Your task to perform on an android device: What is the news today? Image 0: 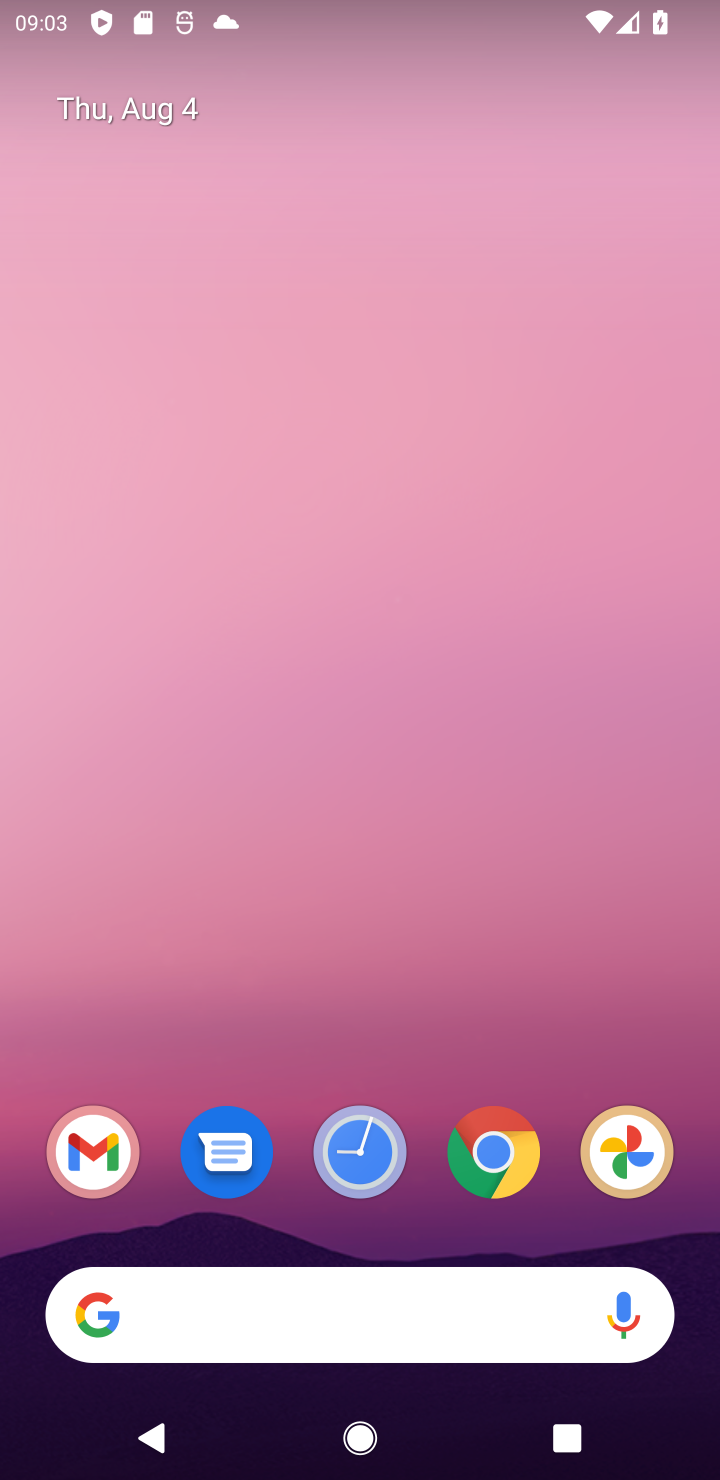
Step 0: press home button
Your task to perform on an android device: What is the news today? Image 1: 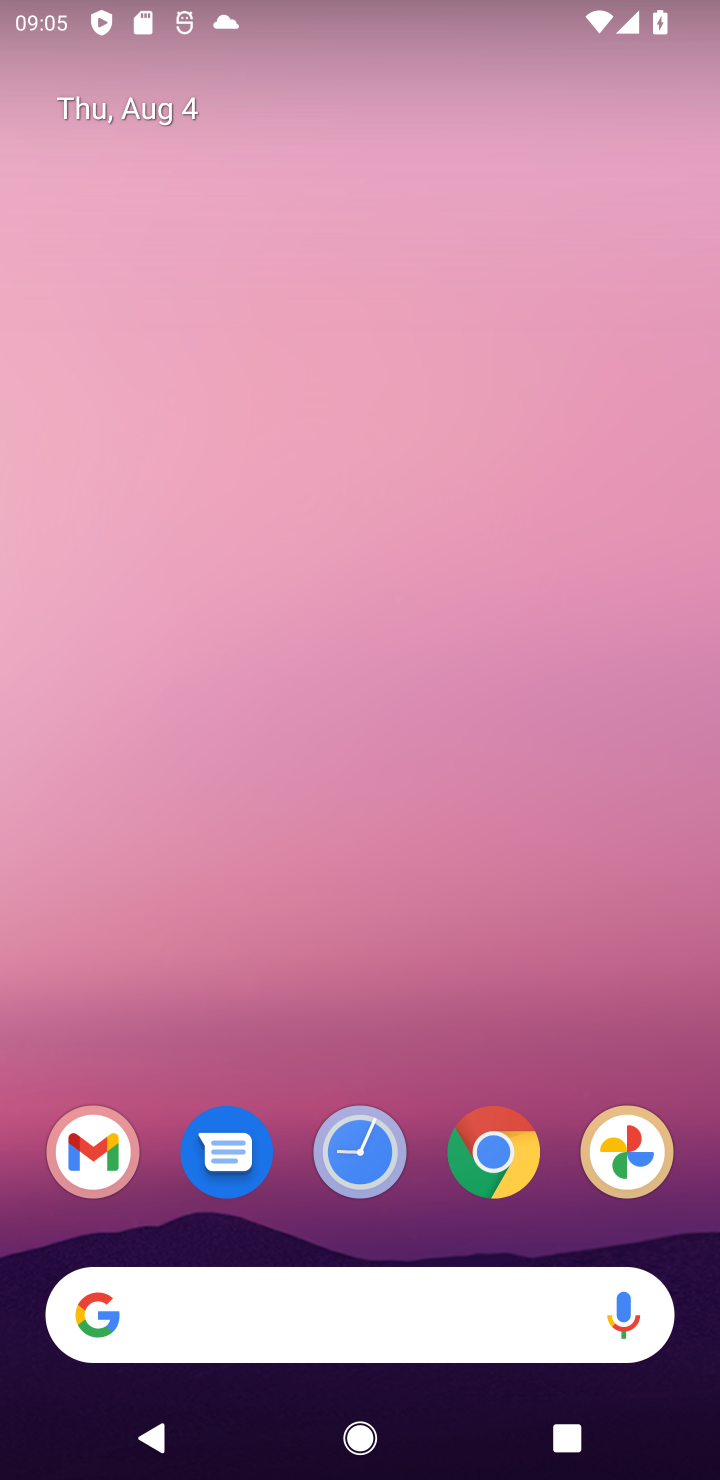
Step 1: click (415, 1329)
Your task to perform on an android device: What is the news today? Image 2: 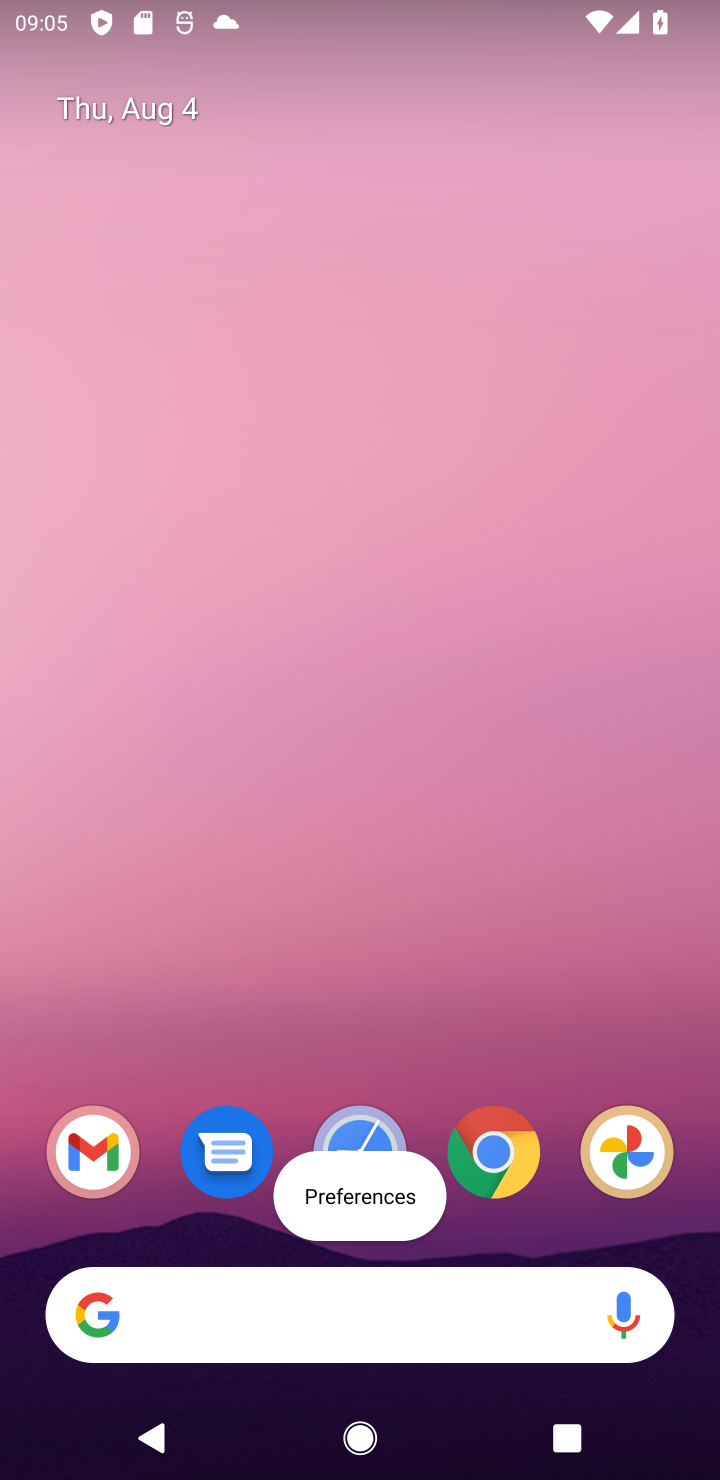
Step 2: click (245, 1322)
Your task to perform on an android device: What is the news today? Image 3: 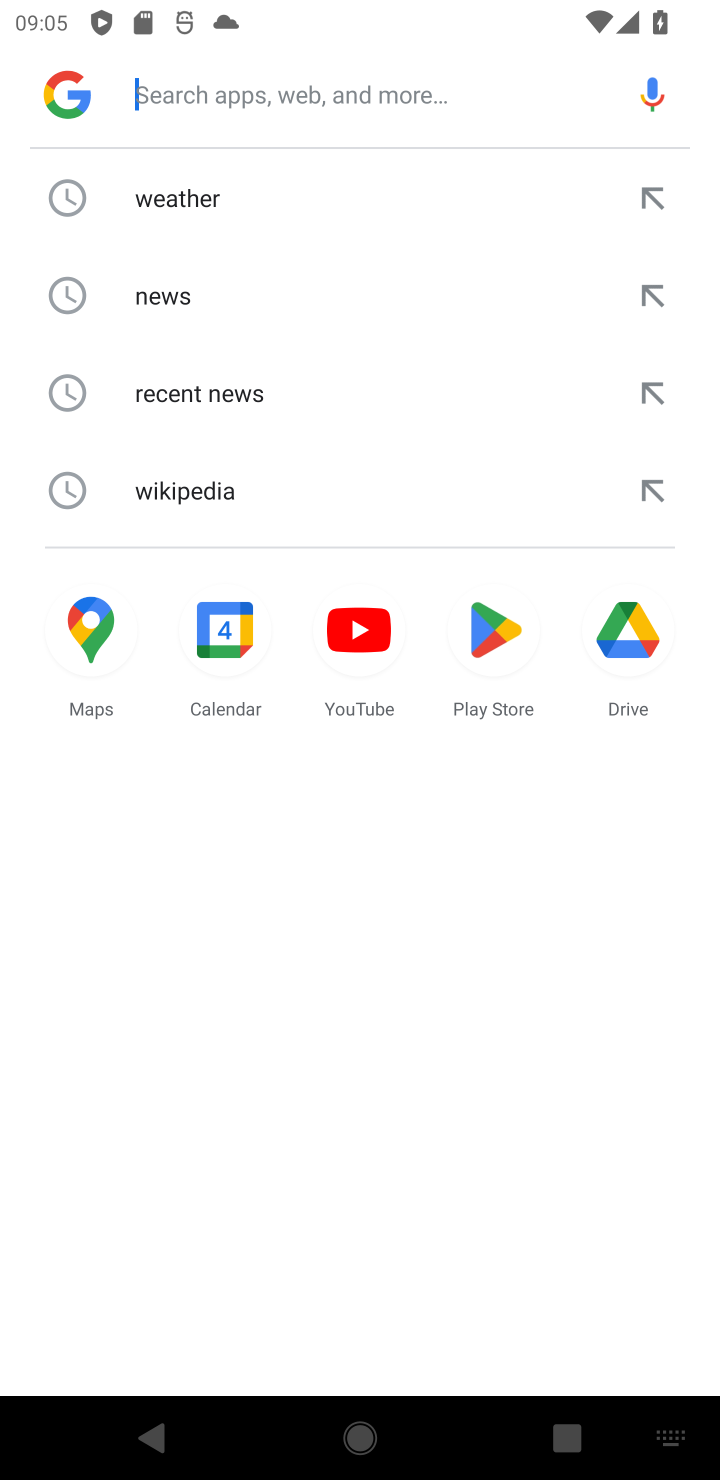
Step 3: click (159, 301)
Your task to perform on an android device: What is the news today? Image 4: 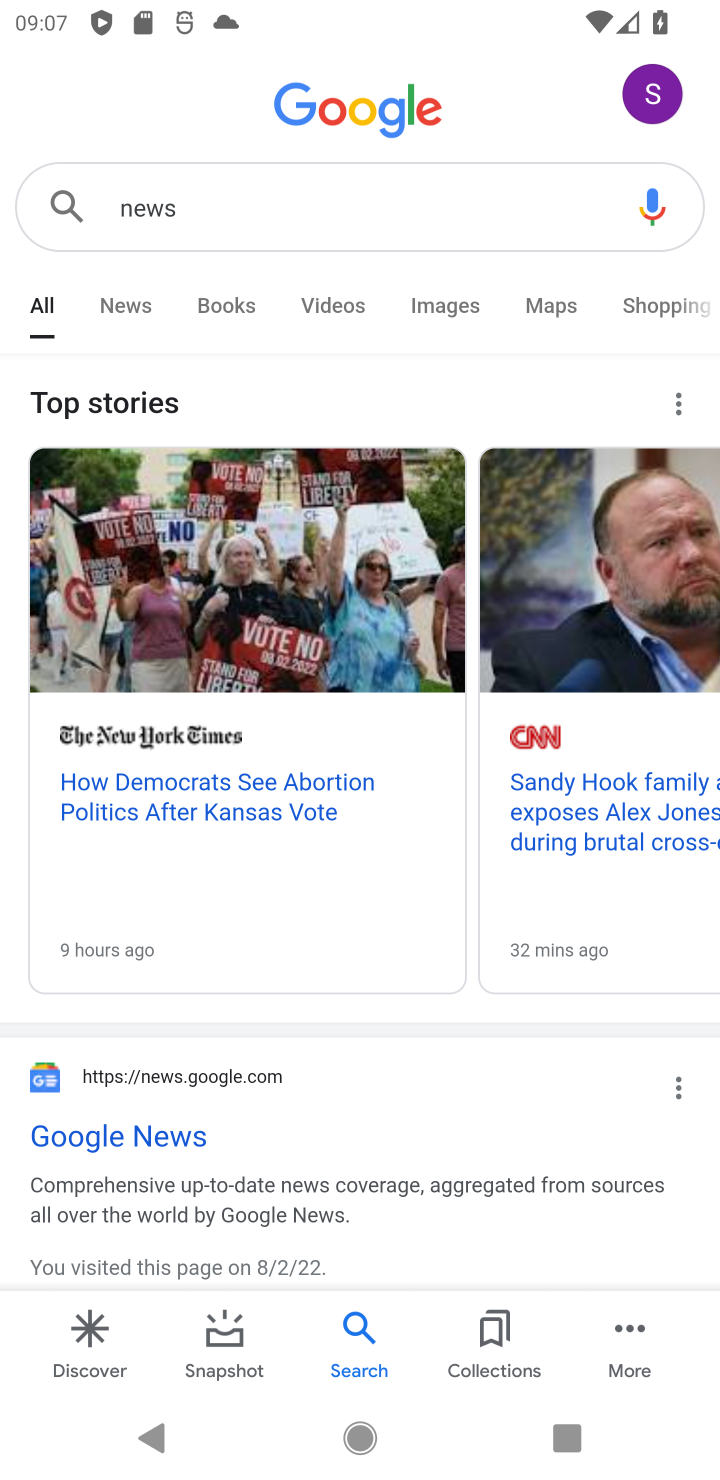
Step 4: task complete